Your task to perform on an android device: Play the last video I watched on Youtube Image 0: 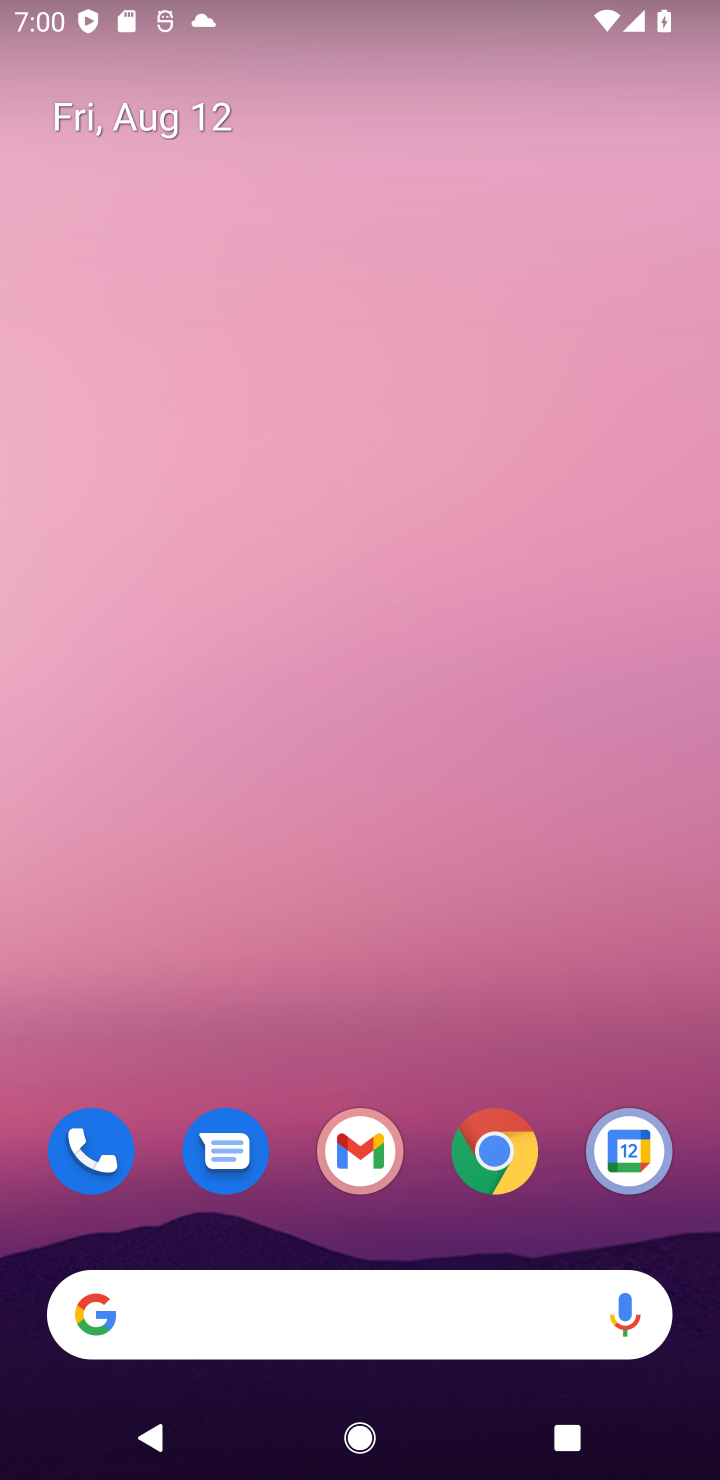
Step 0: drag from (368, 1048) to (374, 210)
Your task to perform on an android device: Play the last video I watched on Youtube Image 1: 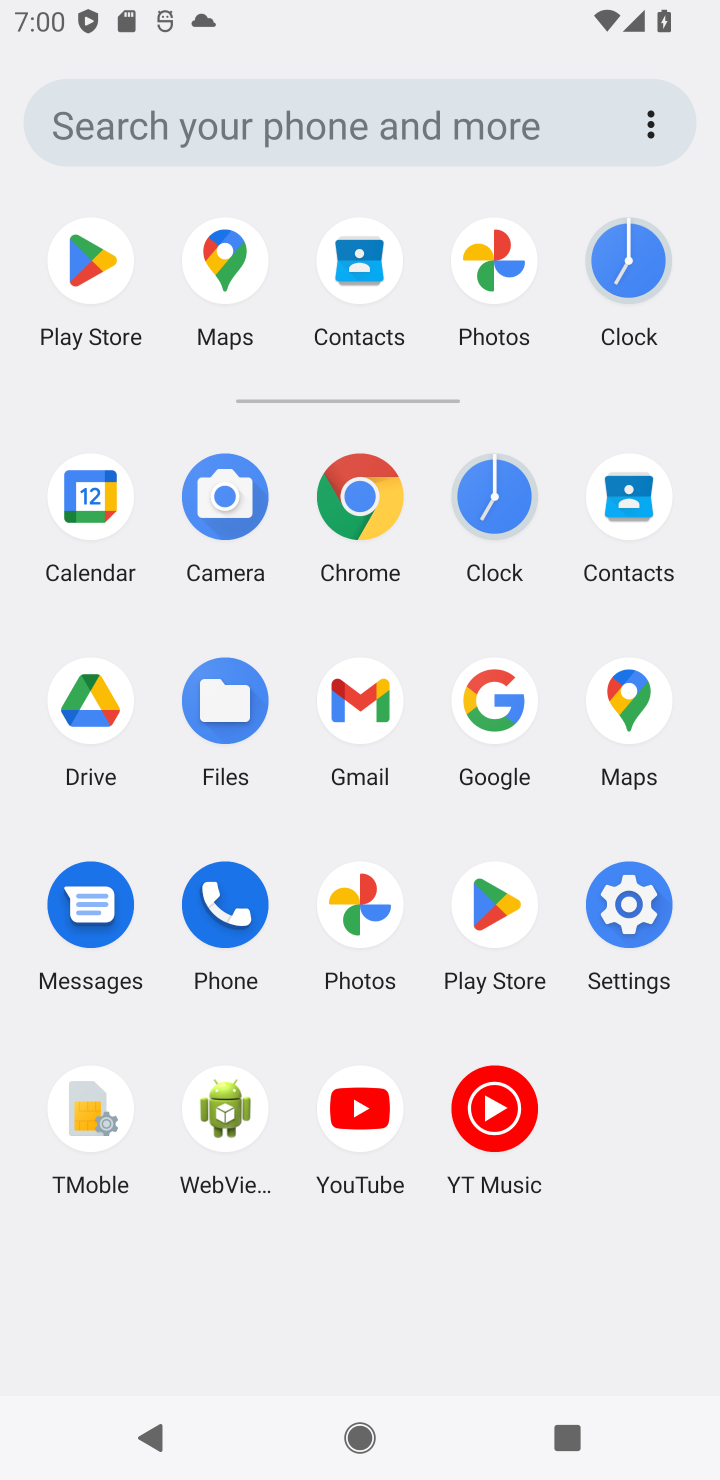
Step 1: click (358, 1095)
Your task to perform on an android device: Play the last video I watched on Youtube Image 2: 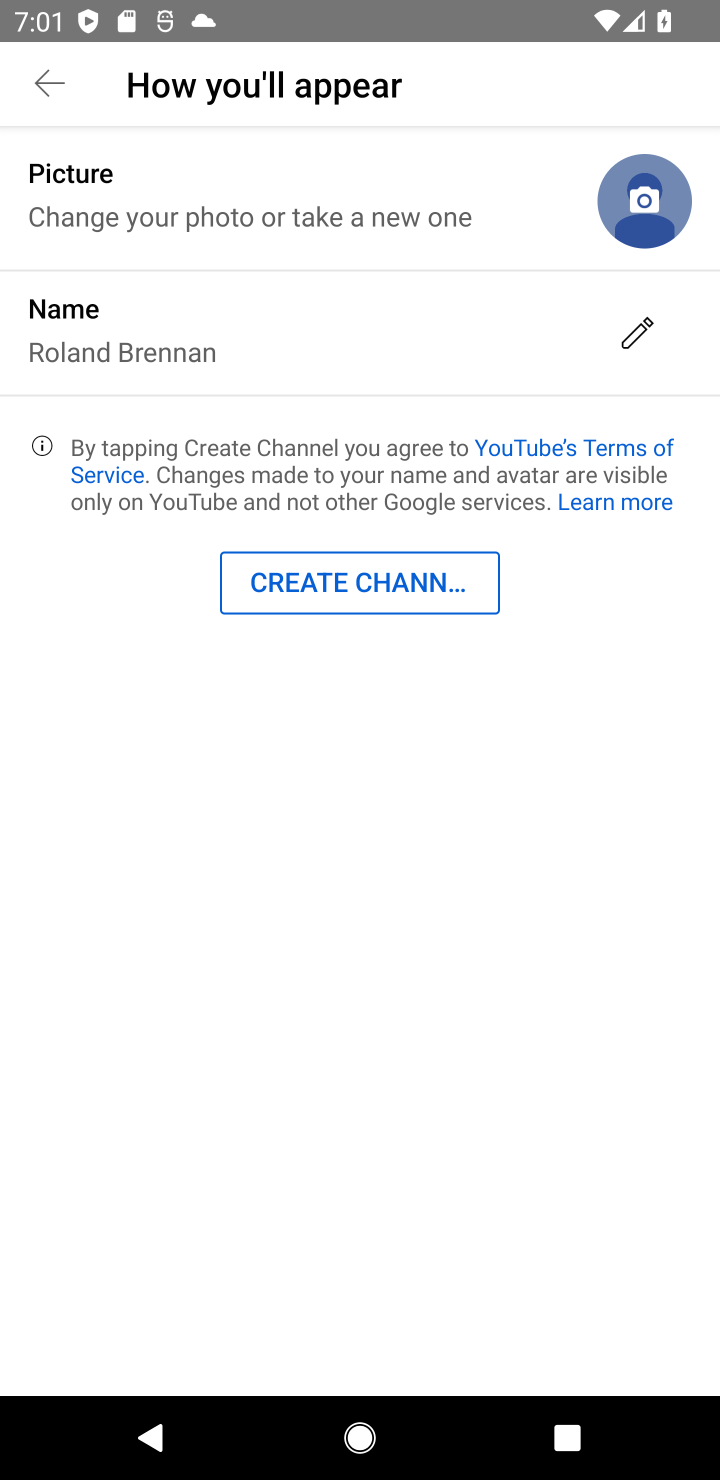
Step 2: press back button
Your task to perform on an android device: Play the last video I watched on Youtube Image 3: 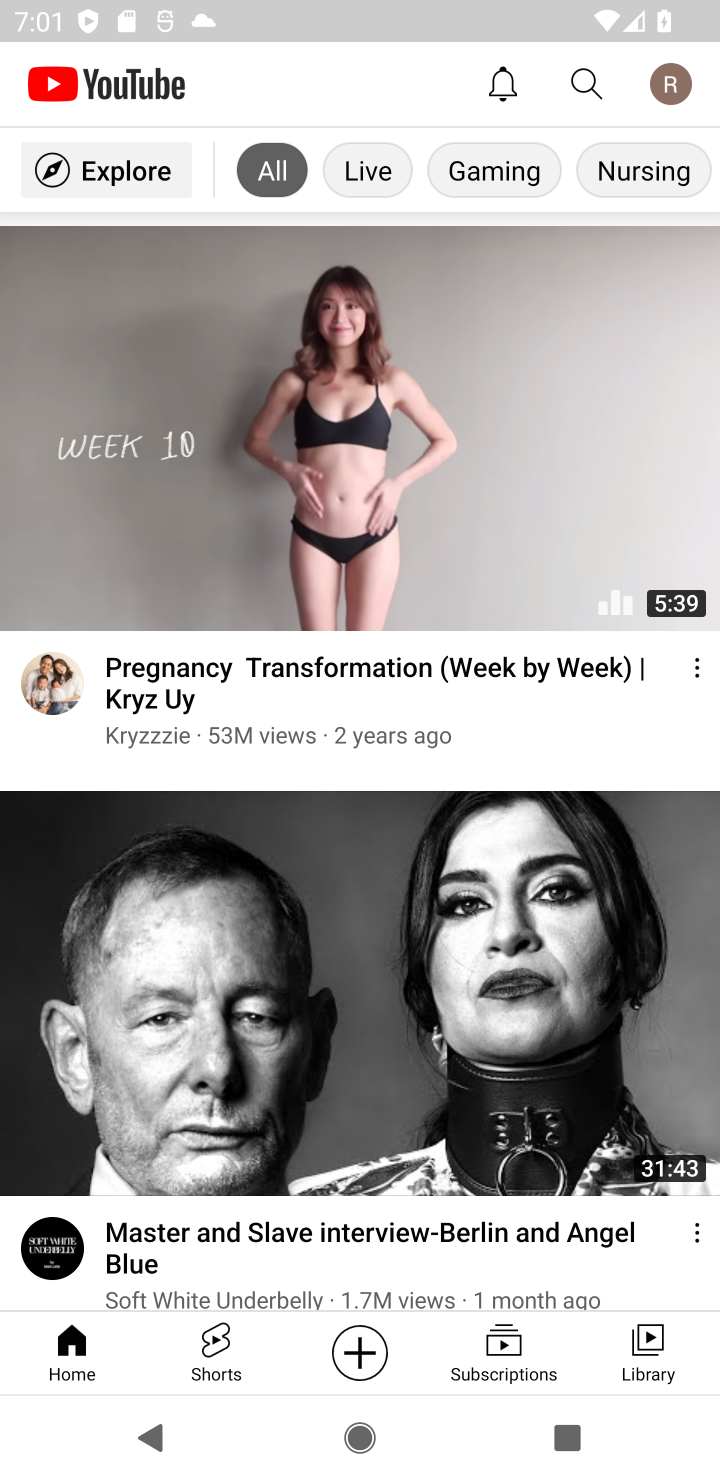
Step 3: click (687, 1353)
Your task to perform on an android device: Play the last video I watched on Youtube Image 4: 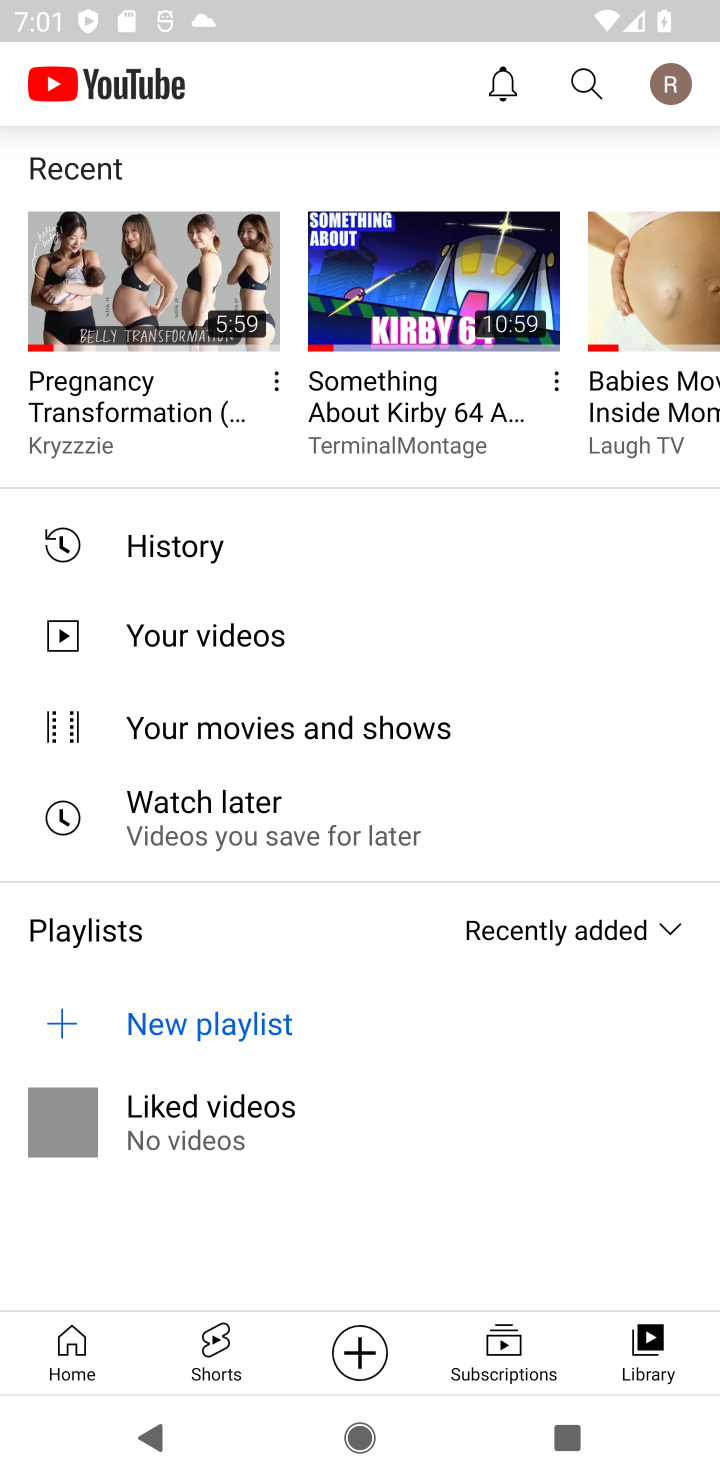
Step 4: click (176, 289)
Your task to perform on an android device: Play the last video I watched on Youtube Image 5: 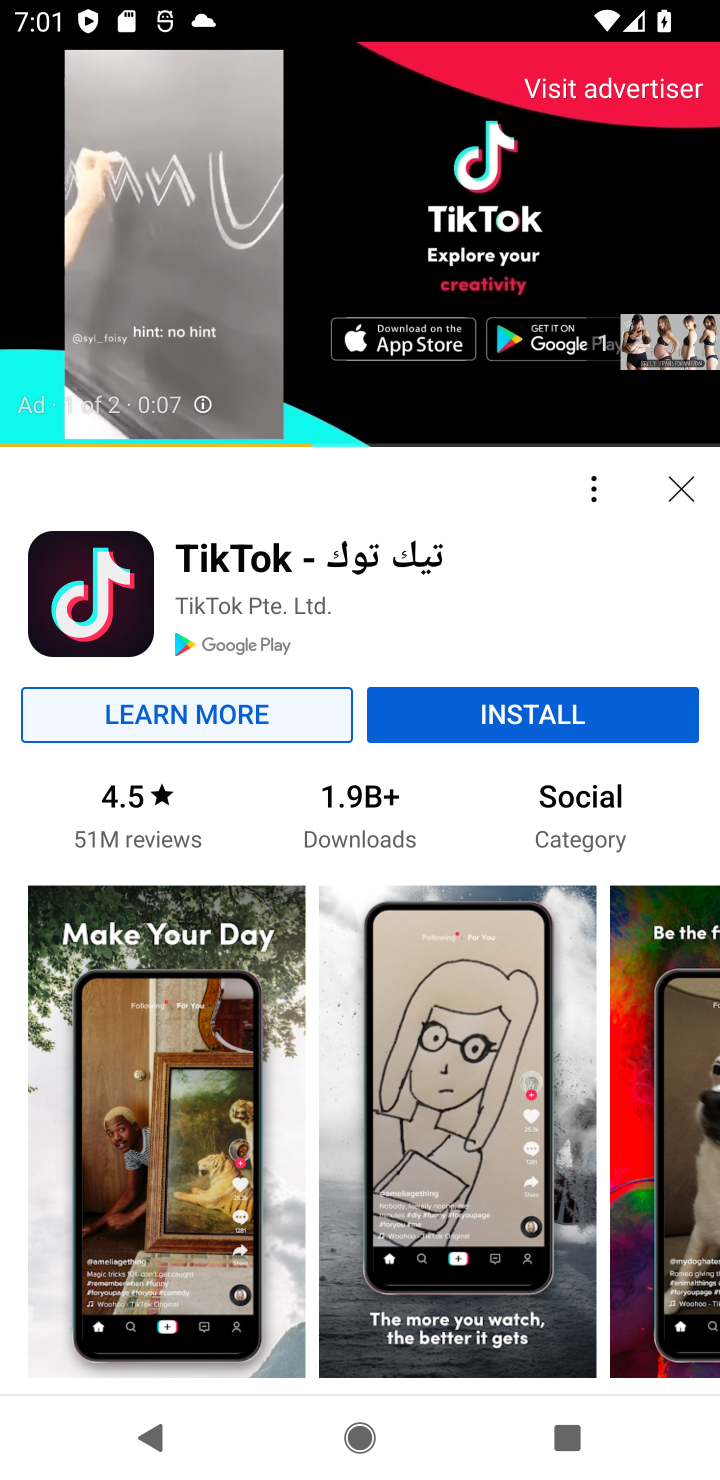
Step 5: task complete